Your task to perform on an android device: Open sound settings Image 0: 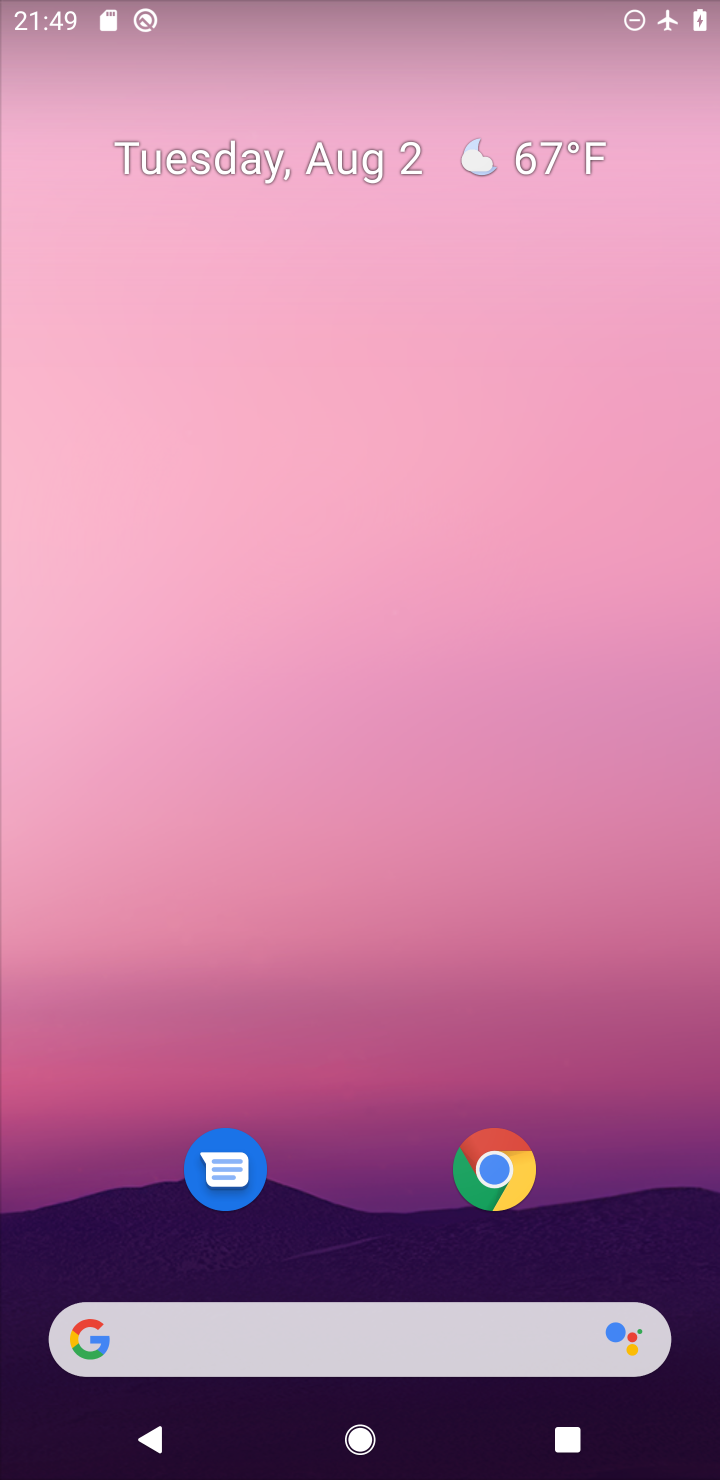
Step 0: drag from (386, 721) to (396, 389)
Your task to perform on an android device: Open sound settings Image 1: 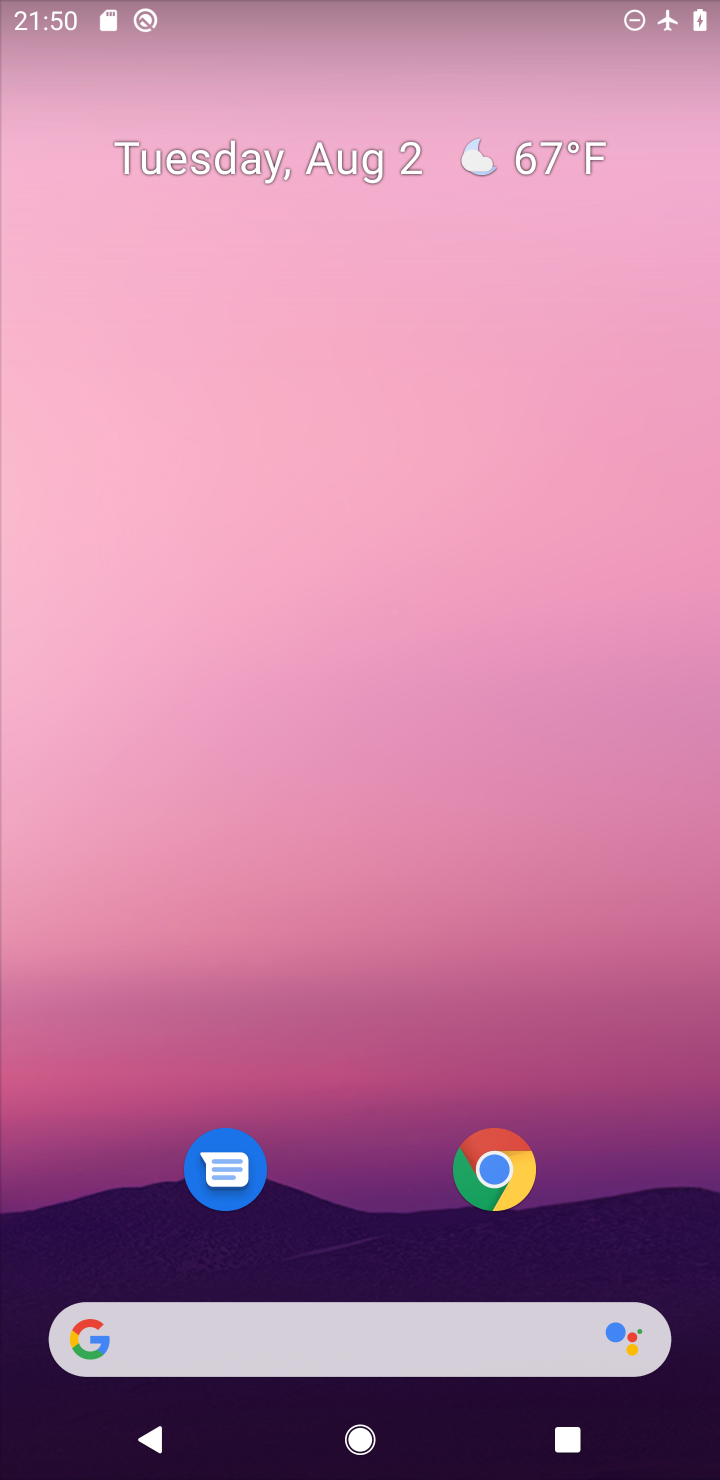
Step 1: drag from (351, 1127) to (356, 5)
Your task to perform on an android device: Open sound settings Image 2: 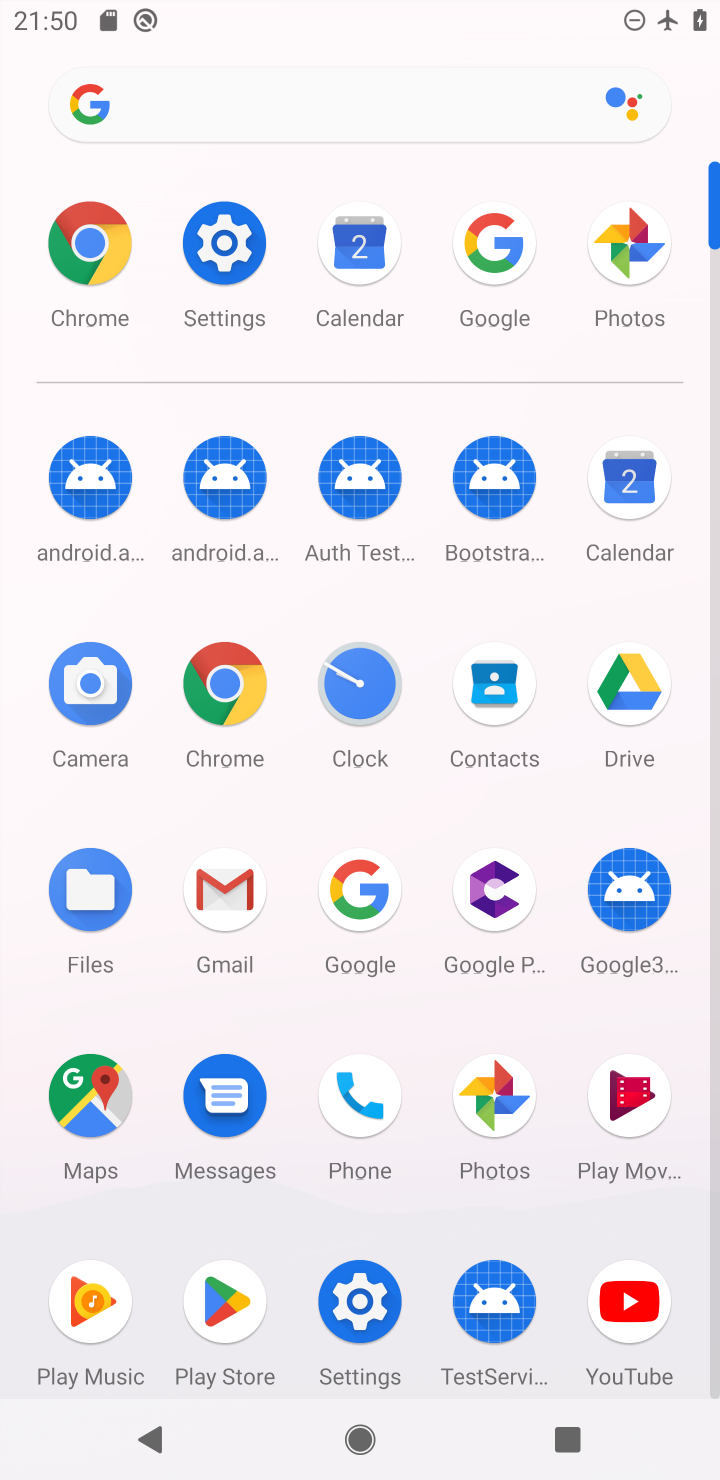
Step 2: click (214, 256)
Your task to perform on an android device: Open sound settings Image 3: 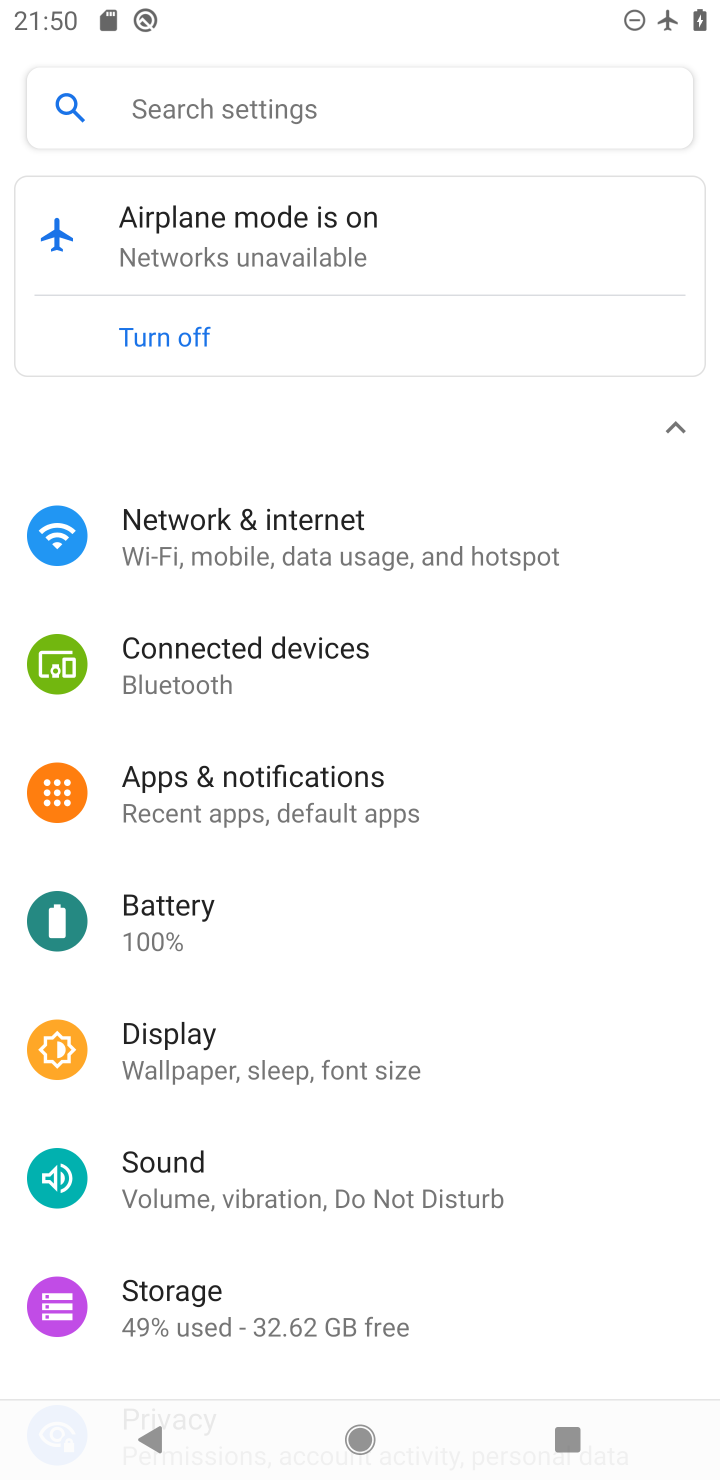
Step 3: click (189, 1183)
Your task to perform on an android device: Open sound settings Image 4: 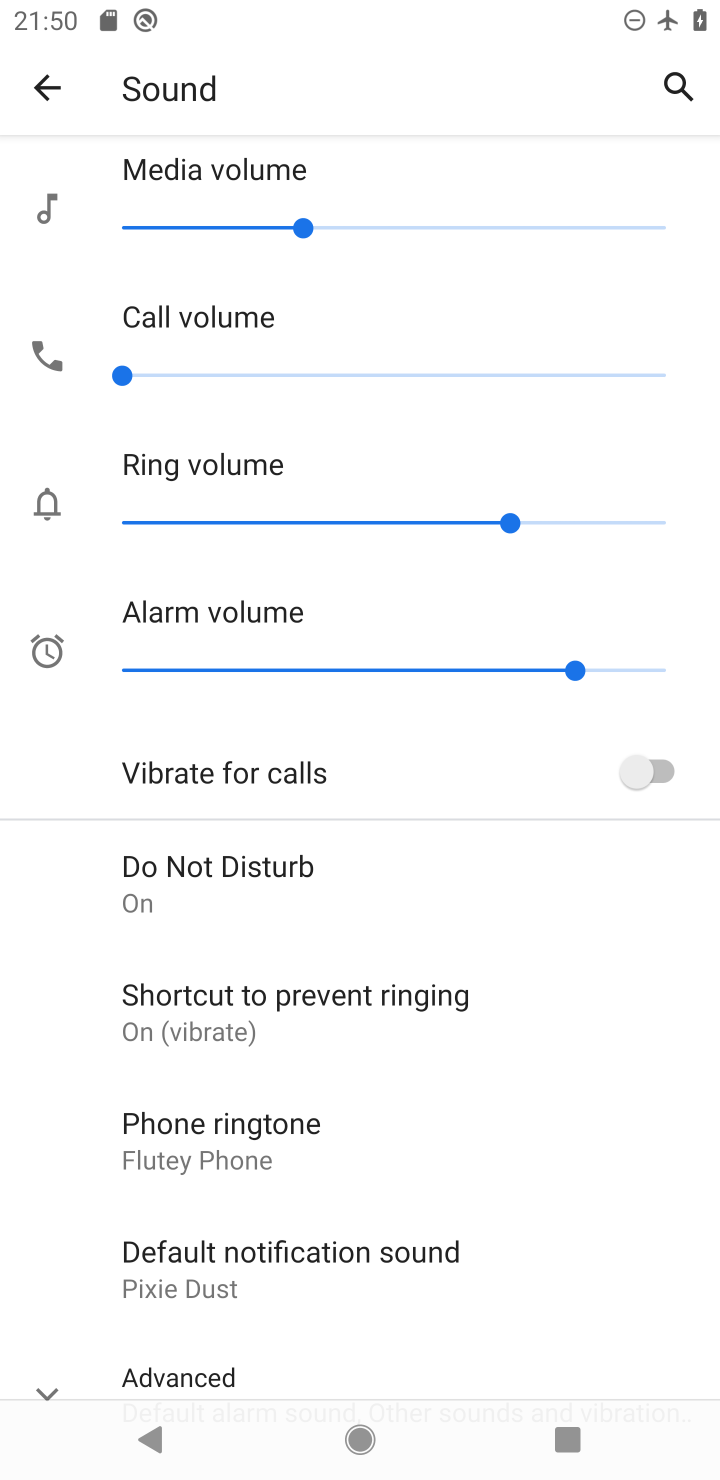
Step 4: task complete